Your task to perform on an android device: What does the iPhone 8 look like? Image 0: 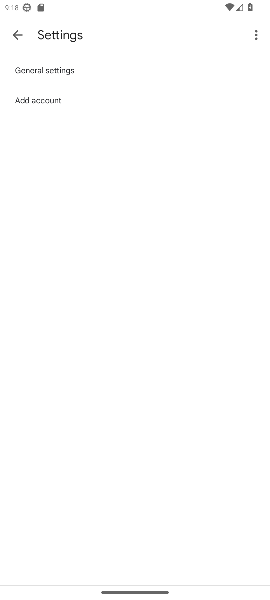
Step 0: press home button
Your task to perform on an android device: What does the iPhone 8 look like? Image 1: 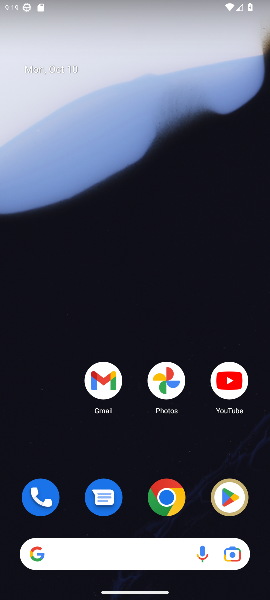
Step 1: drag from (205, 474) to (196, 240)
Your task to perform on an android device: What does the iPhone 8 look like? Image 2: 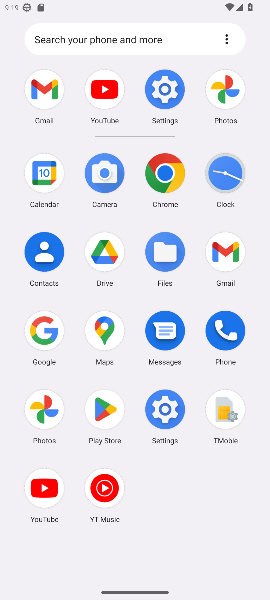
Step 2: click (43, 330)
Your task to perform on an android device: What does the iPhone 8 look like? Image 3: 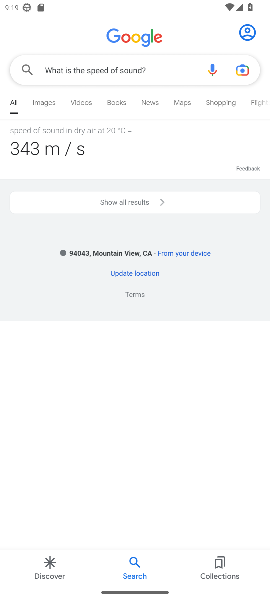
Step 3: click (153, 72)
Your task to perform on an android device: What does the iPhone 8 look like? Image 4: 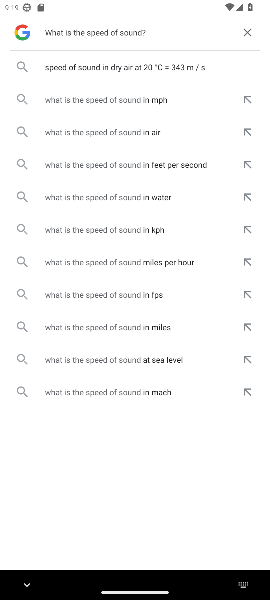
Step 4: click (250, 31)
Your task to perform on an android device: What does the iPhone 8 look like? Image 5: 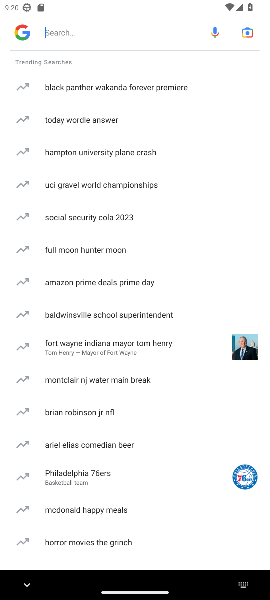
Step 5: click (113, 24)
Your task to perform on an android device: What does the iPhone 8 look like? Image 6: 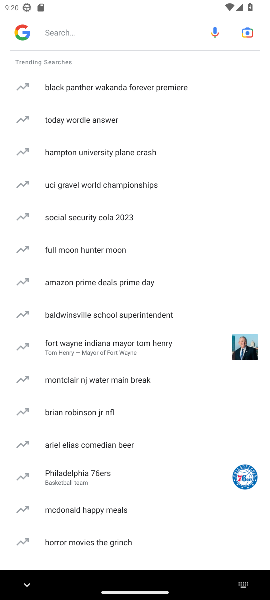
Step 6: type "What does the iPhone 8 look like?"
Your task to perform on an android device: What does the iPhone 8 look like? Image 7: 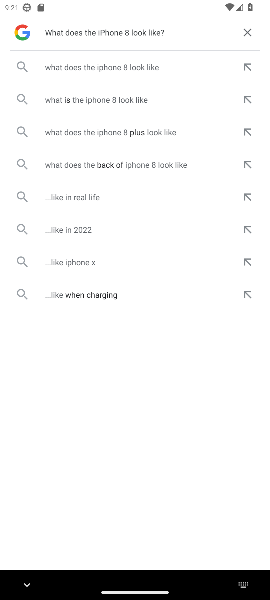
Step 7: click (119, 71)
Your task to perform on an android device: What does the iPhone 8 look like? Image 8: 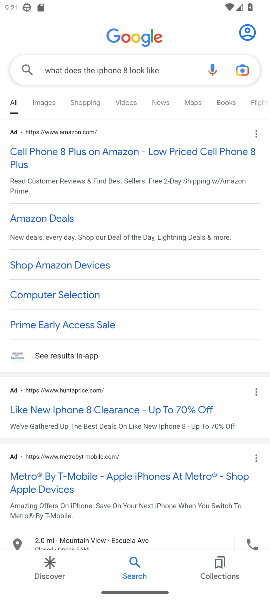
Step 8: click (117, 150)
Your task to perform on an android device: What does the iPhone 8 look like? Image 9: 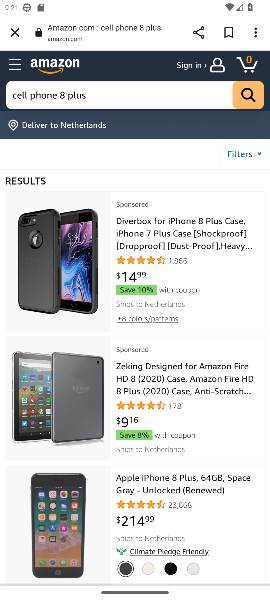
Step 9: task complete